Your task to perform on an android device: Open privacy settings Image 0: 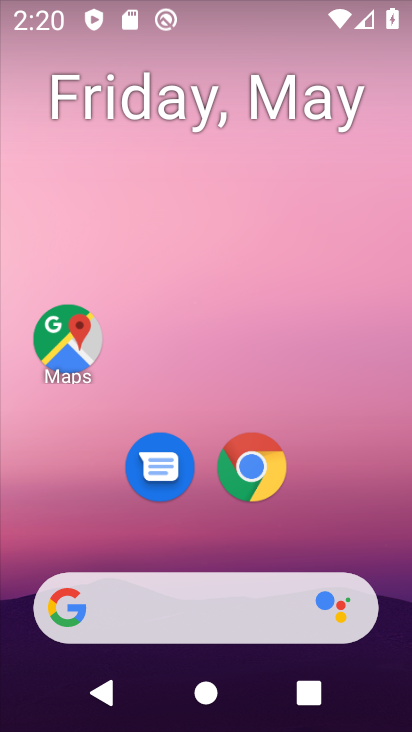
Step 0: drag from (210, 501) to (207, 157)
Your task to perform on an android device: Open privacy settings Image 1: 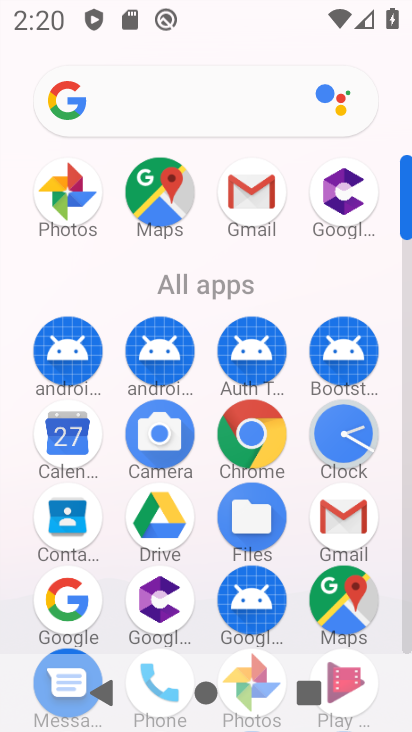
Step 1: drag from (225, 537) to (222, 211)
Your task to perform on an android device: Open privacy settings Image 2: 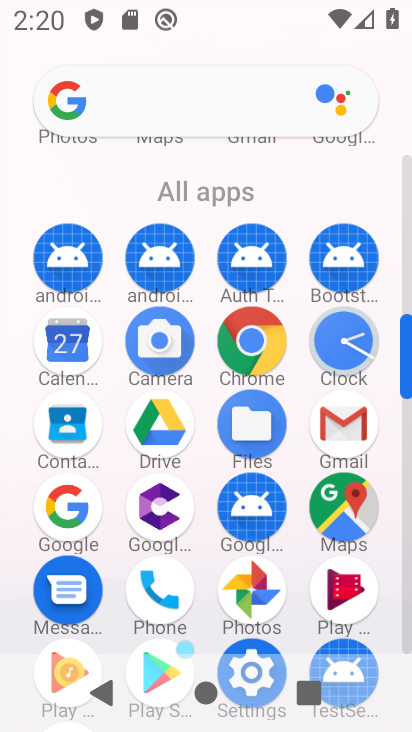
Step 2: drag from (288, 635) to (328, 249)
Your task to perform on an android device: Open privacy settings Image 3: 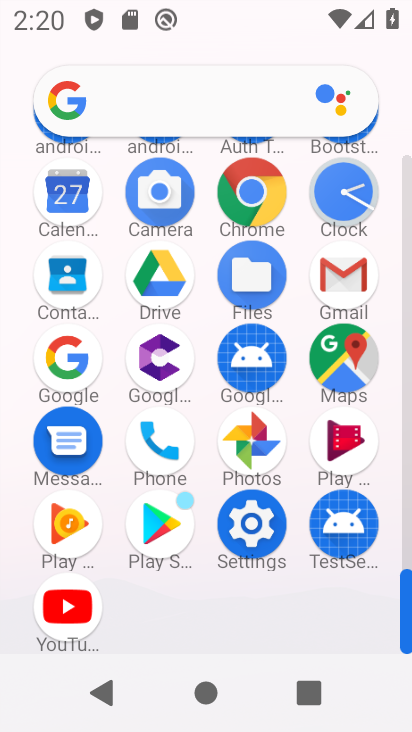
Step 3: click (267, 514)
Your task to perform on an android device: Open privacy settings Image 4: 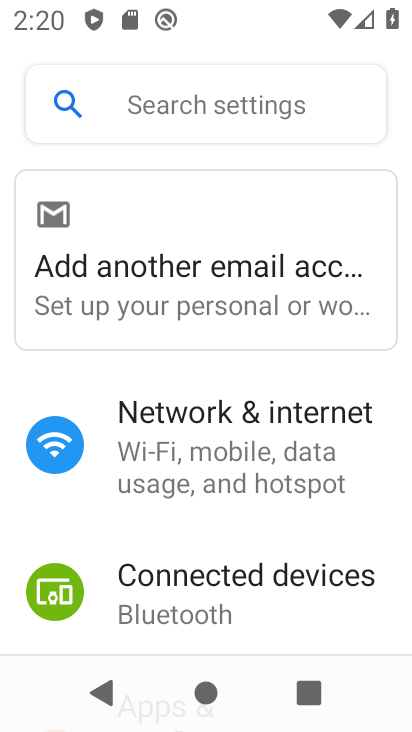
Step 4: drag from (238, 641) to (220, 192)
Your task to perform on an android device: Open privacy settings Image 5: 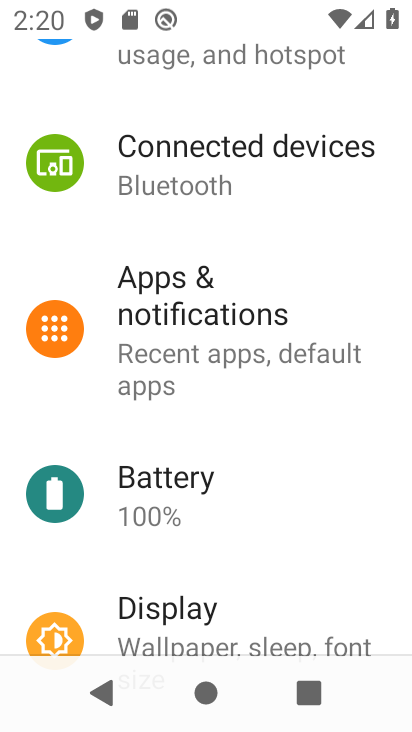
Step 5: drag from (232, 616) to (199, 250)
Your task to perform on an android device: Open privacy settings Image 6: 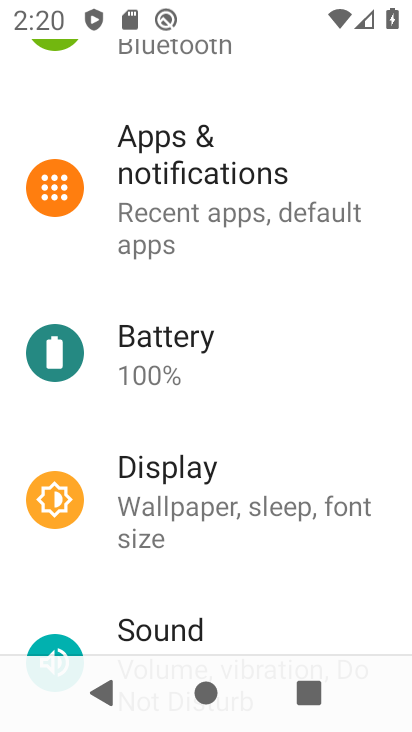
Step 6: drag from (245, 584) to (226, 282)
Your task to perform on an android device: Open privacy settings Image 7: 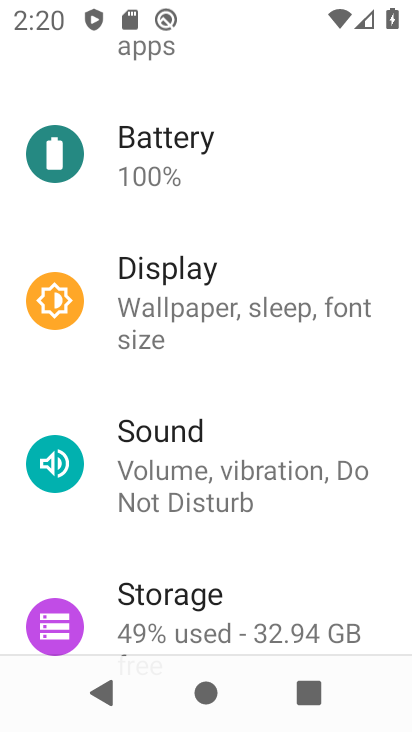
Step 7: drag from (240, 623) to (211, 244)
Your task to perform on an android device: Open privacy settings Image 8: 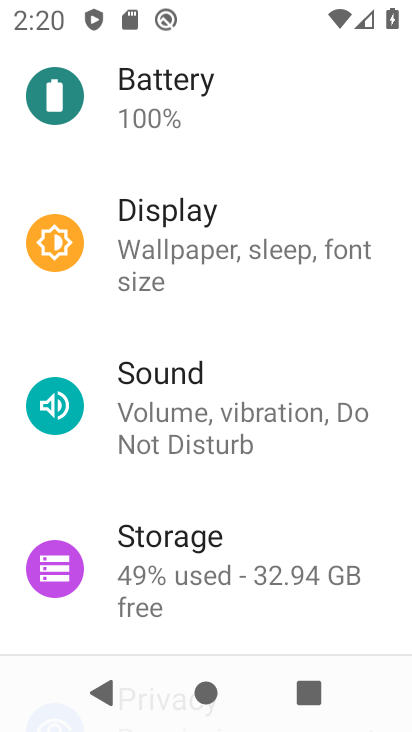
Step 8: drag from (221, 633) to (188, 317)
Your task to perform on an android device: Open privacy settings Image 9: 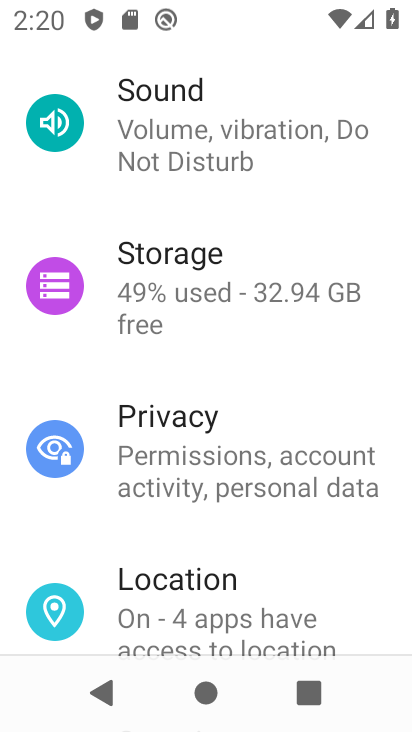
Step 9: click (226, 472)
Your task to perform on an android device: Open privacy settings Image 10: 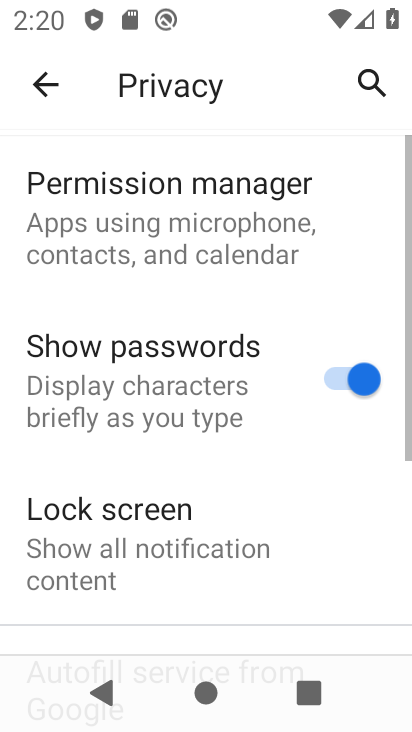
Step 10: task complete